Your task to perform on an android device: turn notification dots off Image 0: 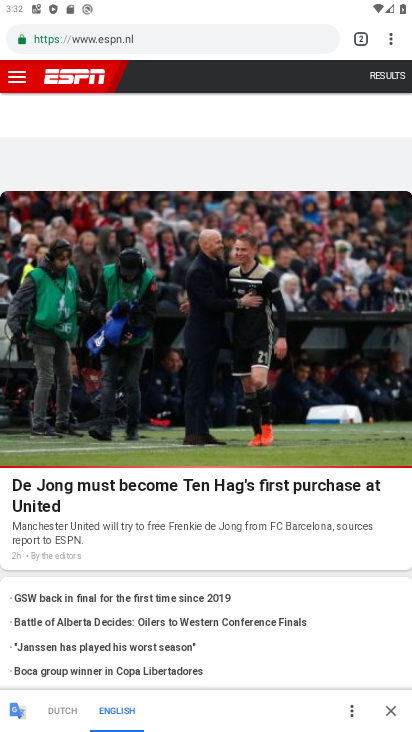
Step 0: press home button
Your task to perform on an android device: turn notification dots off Image 1: 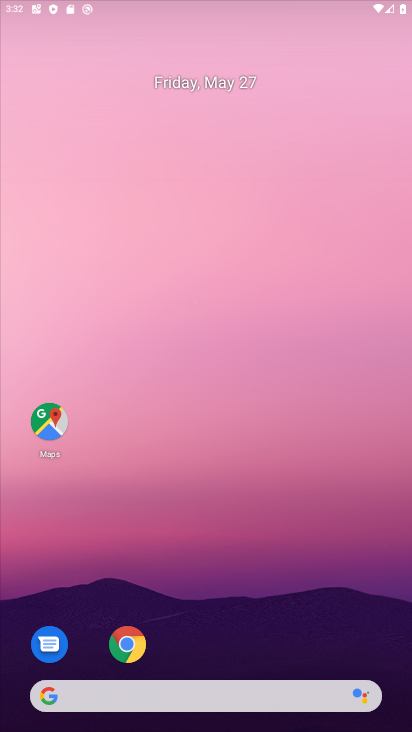
Step 1: drag from (284, 599) to (186, 58)
Your task to perform on an android device: turn notification dots off Image 2: 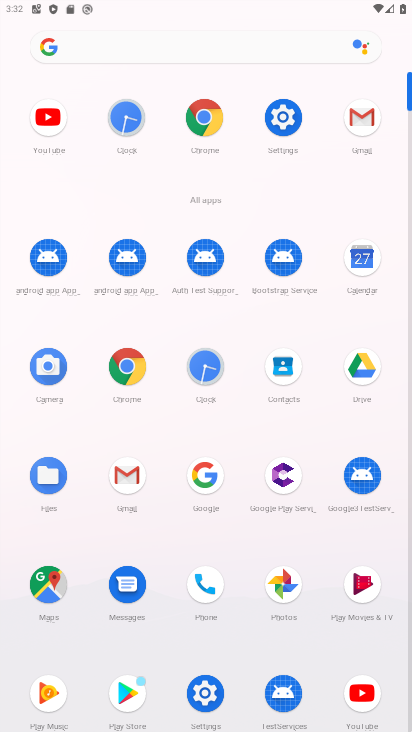
Step 2: click (290, 128)
Your task to perform on an android device: turn notification dots off Image 3: 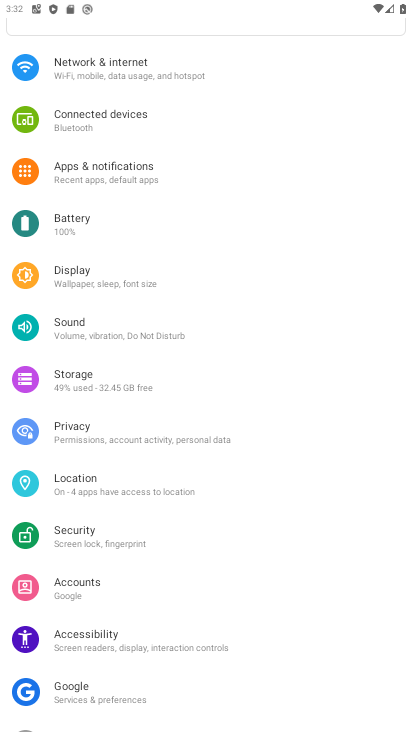
Step 3: click (147, 168)
Your task to perform on an android device: turn notification dots off Image 4: 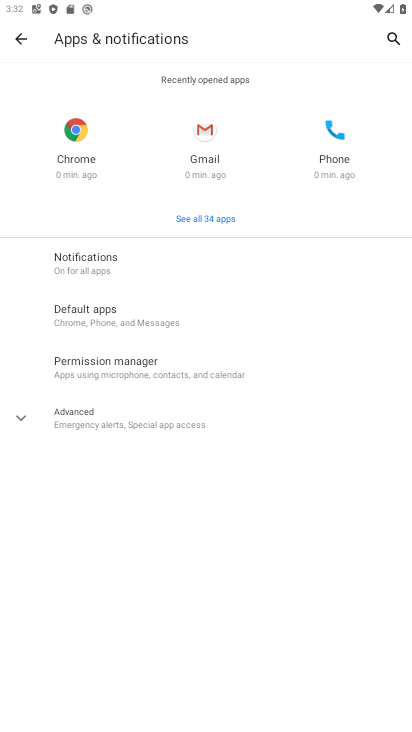
Step 4: click (134, 275)
Your task to perform on an android device: turn notification dots off Image 5: 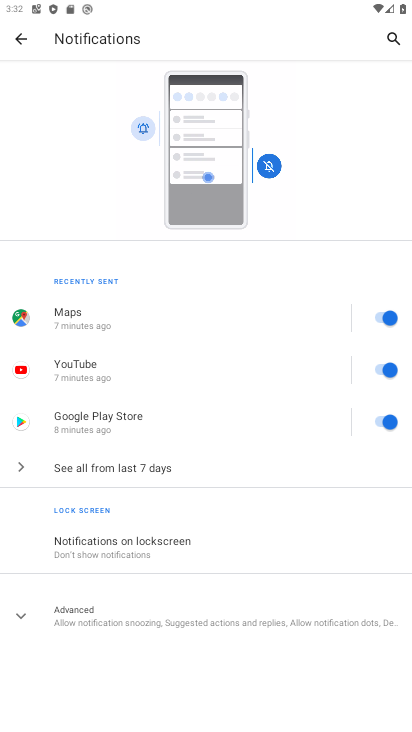
Step 5: click (163, 599)
Your task to perform on an android device: turn notification dots off Image 6: 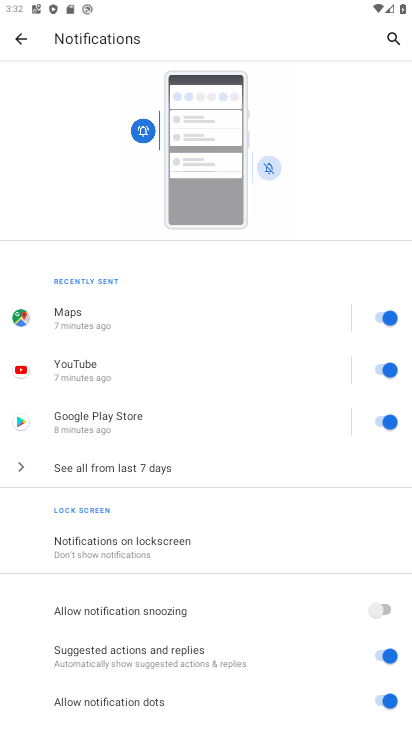
Step 6: click (387, 700)
Your task to perform on an android device: turn notification dots off Image 7: 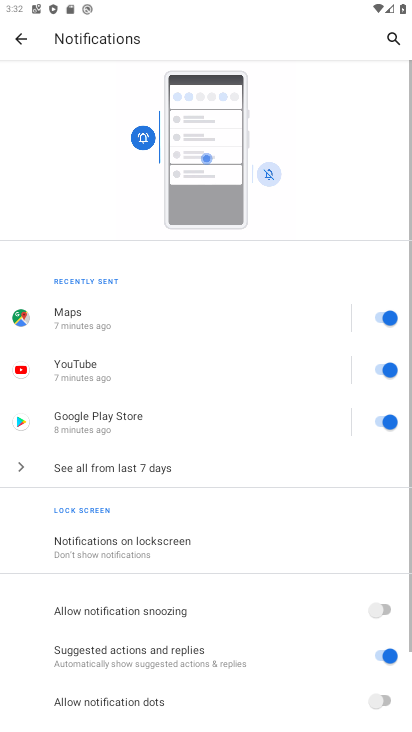
Step 7: task complete